Your task to perform on an android device: Go to Reddit.com Image 0: 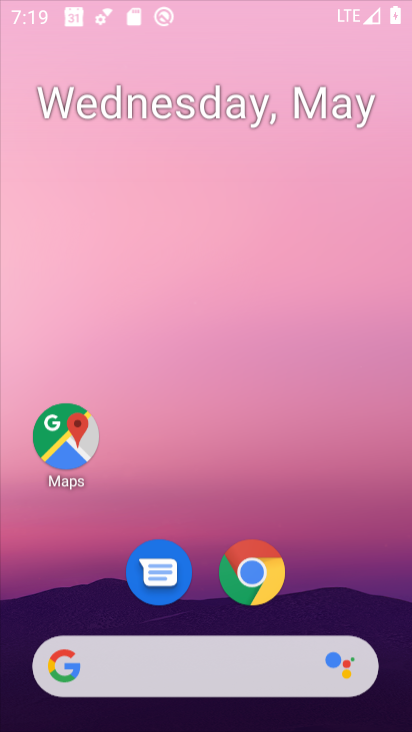
Step 0: click (50, 423)
Your task to perform on an android device: Go to Reddit.com Image 1: 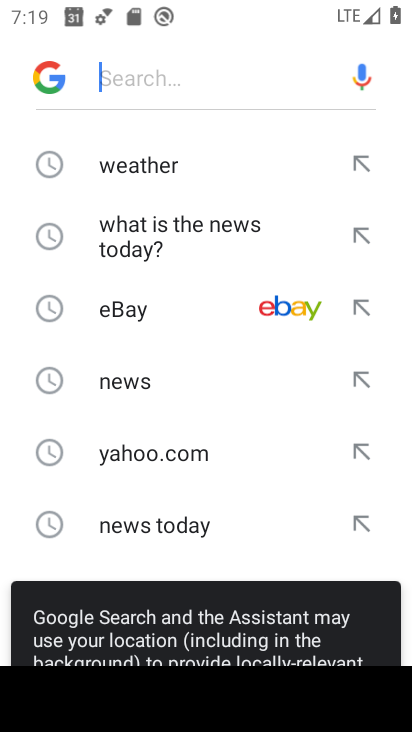
Step 1: press home button
Your task to perform on an android device: Go to Reddit.com Image 2: 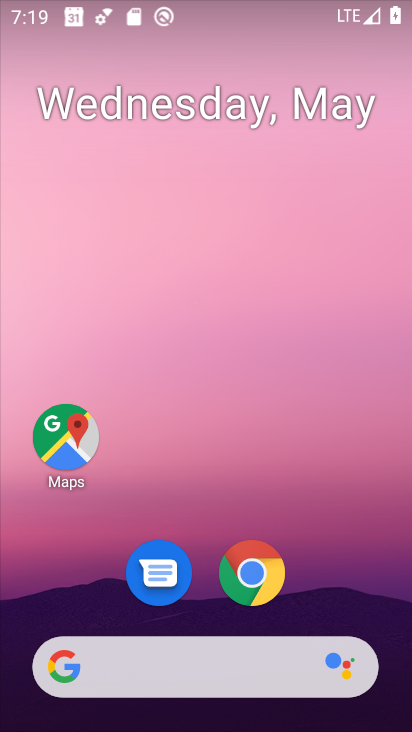
Step 2: click (235, 573)
Your task to perform on an android device: Go to Reddit.com Image 3: 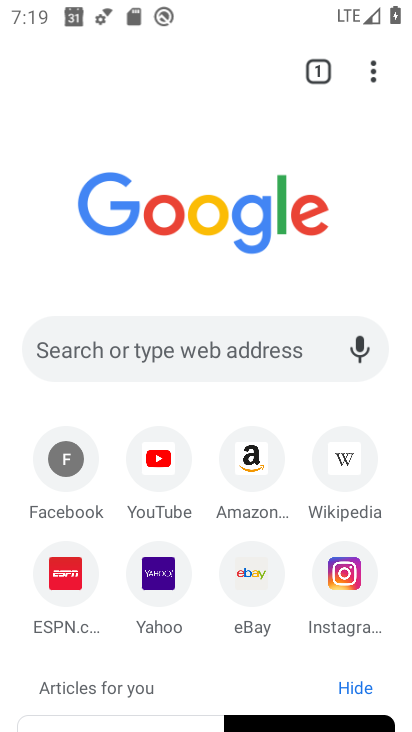
Step 3: click (191, 343)
Your task to perform on an android device: Go to Reddit.com Image 4: 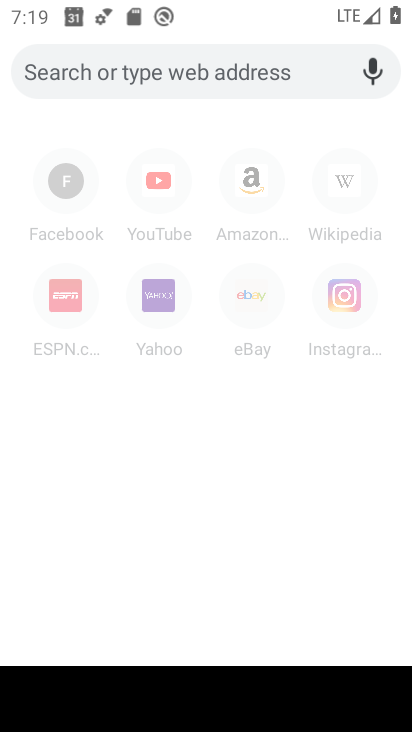
Step 4: type "Reddit.com"
Your task to perform on an android device: Go to Reddit.com Image 5: 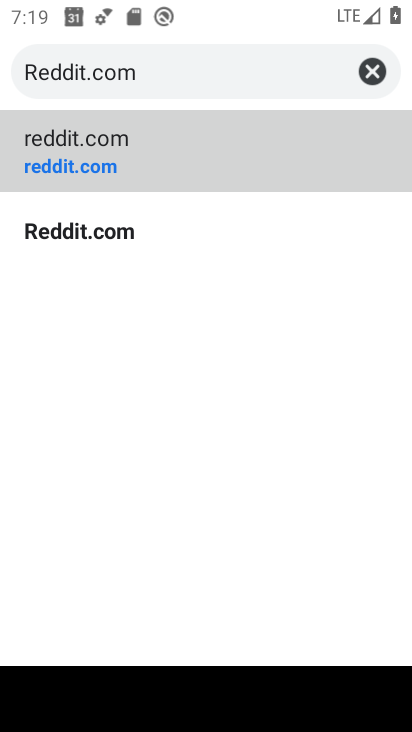
Step 5: click (113, 235)
Your task to perform on an android device: Go to Reddit.com Image 6: 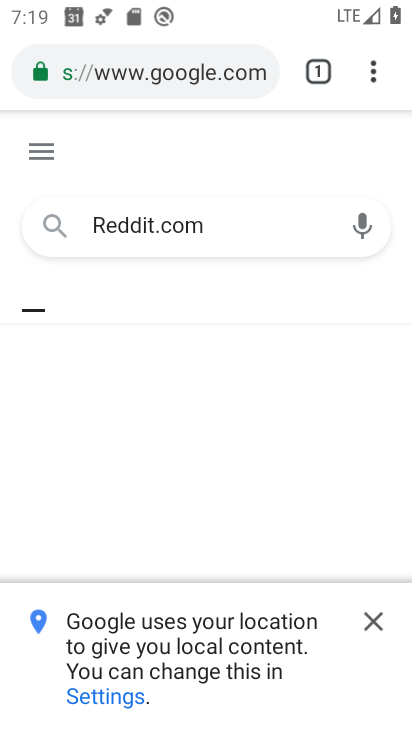
Step 6: click (371, 626)
Your task to perform on an android device: Go to Reddit.com Image 7: 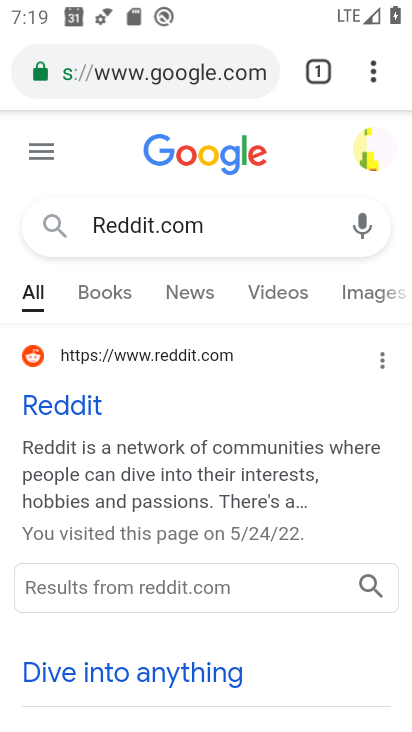
Step 7: task complete